Your task to perform on an android device: Open maps Image 0: 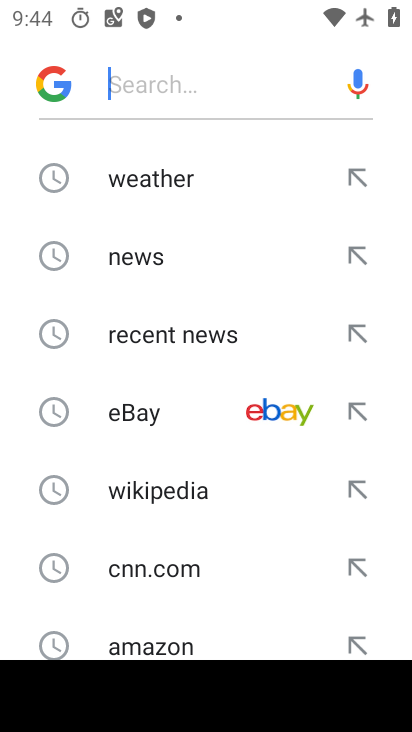
Step 0: press home button
Your task to perform on an android device: Open maps Image 1: 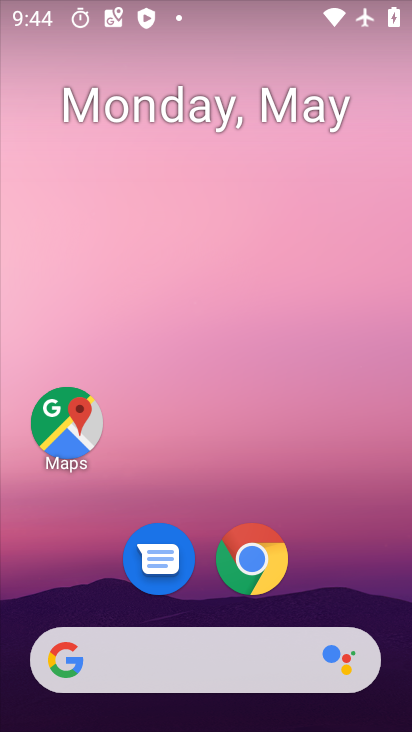
Step 1: drag from (221, 611) to (380, 2)
Your task to perform on an android device: Open maps Image 2: 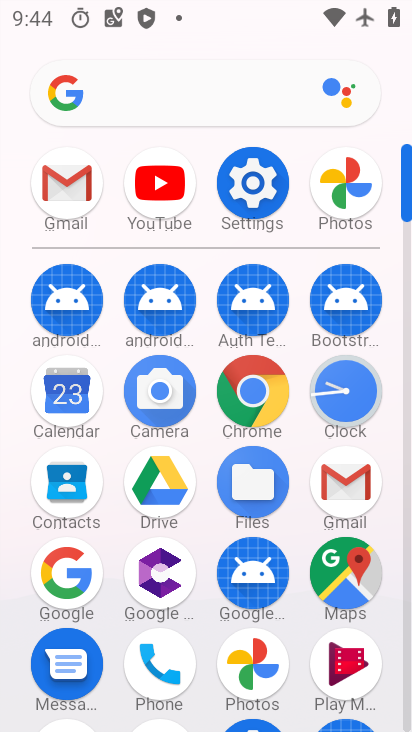
Step 2: click (346, 573)
Your task to perform on an android device: Open maps Image 3: 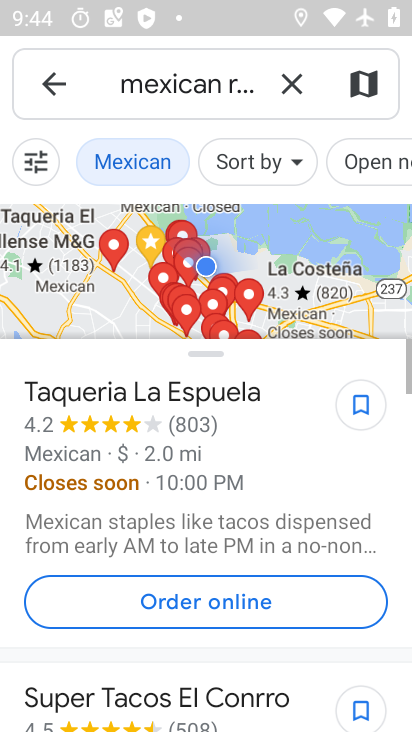
Step 3: click (64, 73)
Your task to perform on an android device: Open maps Image 4: 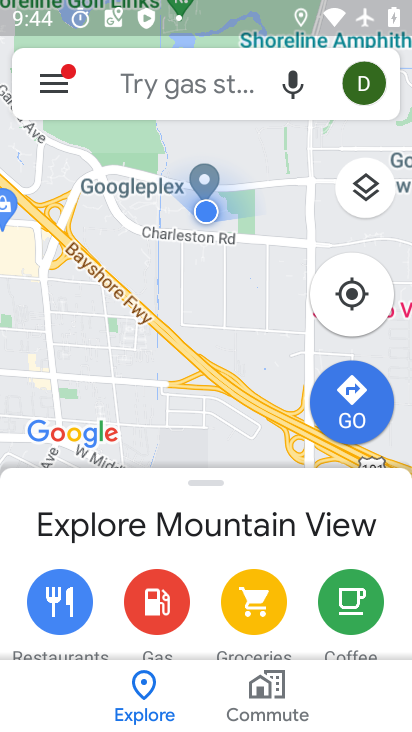
Step 4: task complete